Your task to perform on an android device: turn off smart reply in the gmail app Image 0: 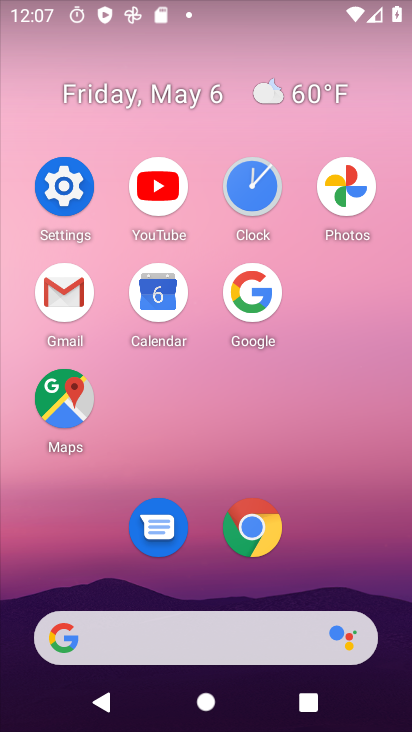
Step 0: click (50, 295)
Your task to perform on an android device: turn off smart reply in the gmail app Image 1: 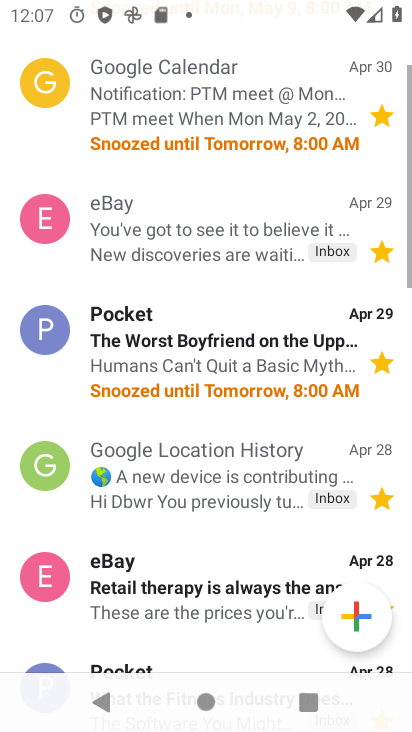
Step 1: drag from (263, 232) to (304, 639)
Your task to perform on an android device: turn off smart reply in the gmail app Image 2: 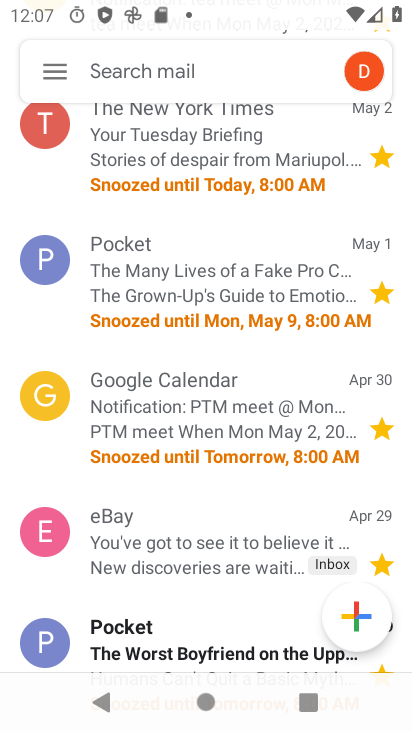
Step 2: click (60, 70)
Your task to perform on an android device: turn off smart reply in the gmail app Image 3: 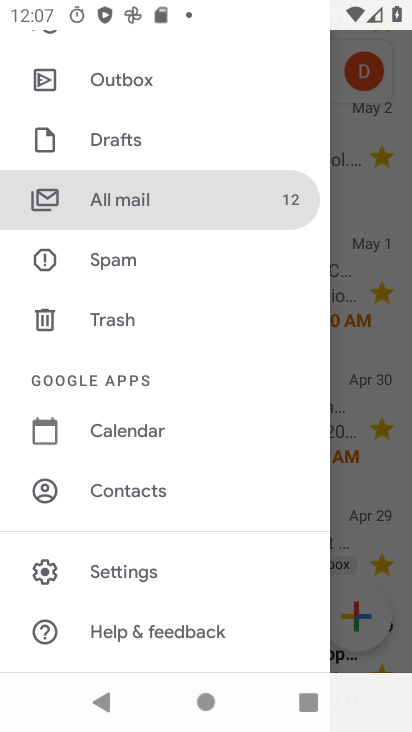
Step 3: click (175, 564)
Your task to perform on an android device: turn off smart reply in the gmail app Image 4: 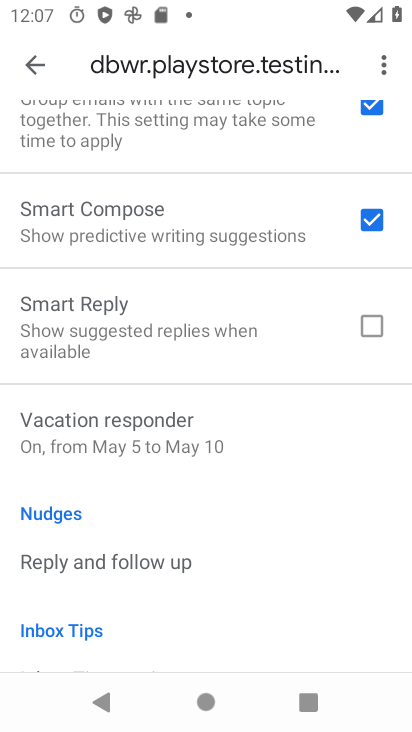
Step 4: task complete